Your task to perform on an android device: Go to Reddit.com Image 0: 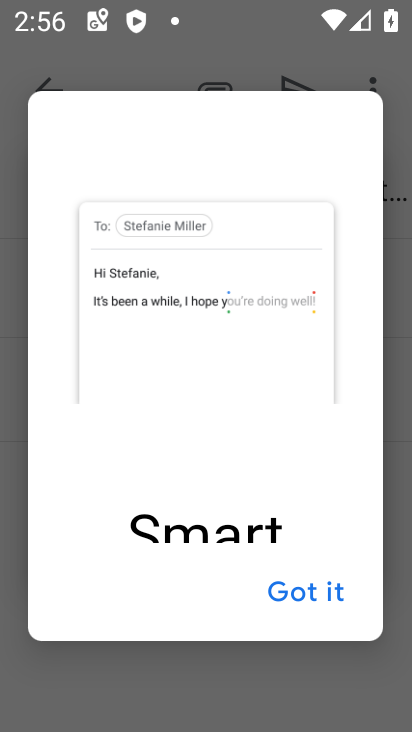
Step 0: press back button
Your task to perform on an android device: Go to Reddit.com Image 1: 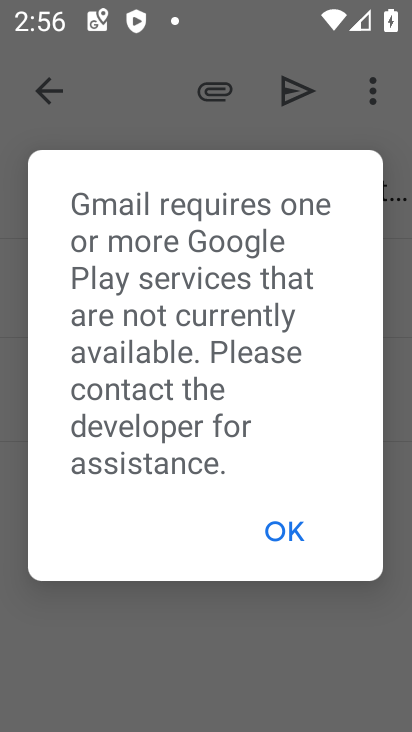
Step 1: press home button
Your task to perform on an android device: Go to Reddit.com Image 2: 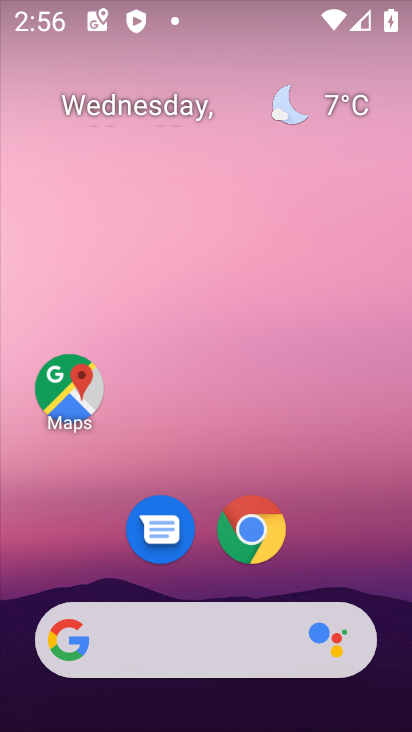
Step 2: click (243, 523)
Your task to perform on an android device: Go to Reddit.com Image 3: 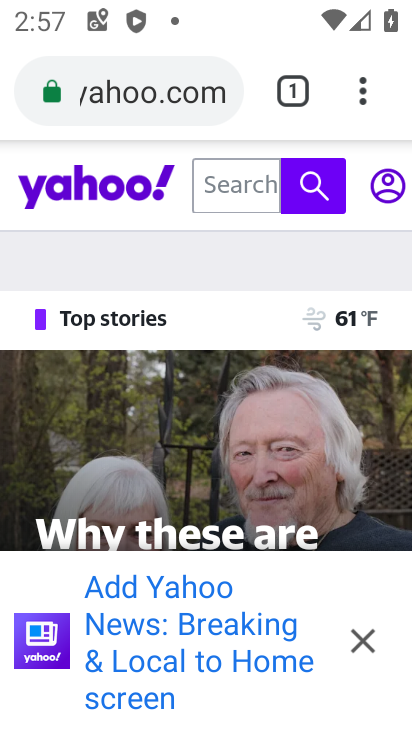
Step 3: click (119, 82)
Your task to perform on an android device: Go to Reddit.com Image 4: 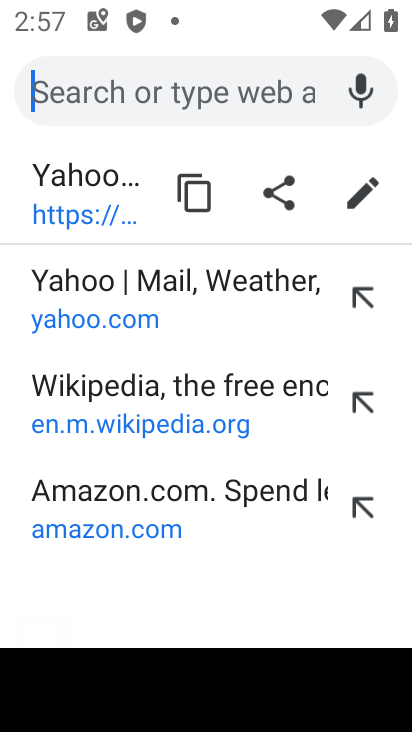
Step 4: click (119, 82)
Your task to perform on an android device: Go to Reddit.com Image 5: 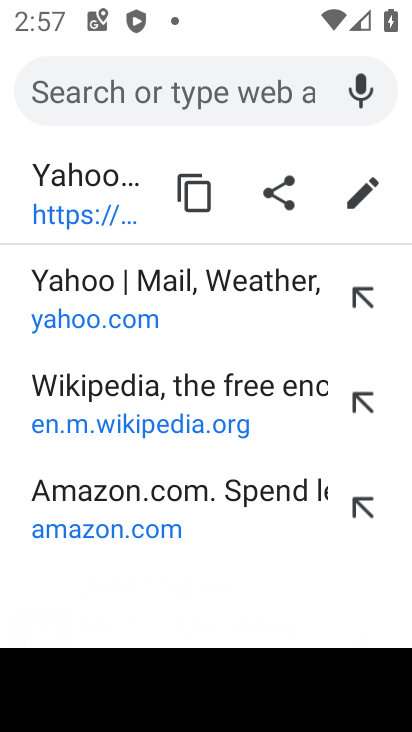
Step 5: type "Reddit.com"
Your task to perform on an android device: Go to Reddit.com Image 6: 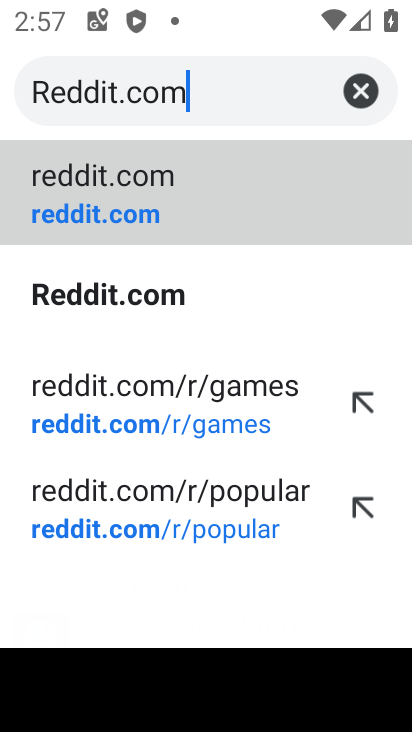
Step 6: type ""
Your task to perform on an android device: Go to Reddit.com Image 7: 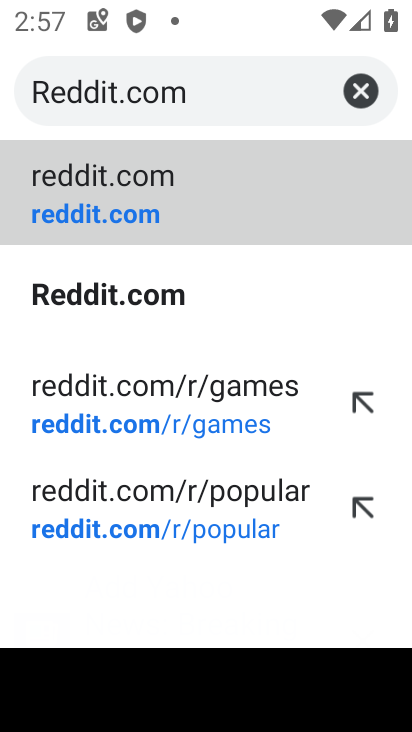
Step 7: click (96, 290)
Your task to perform on an android device: Go to Reddit.com Image 8: 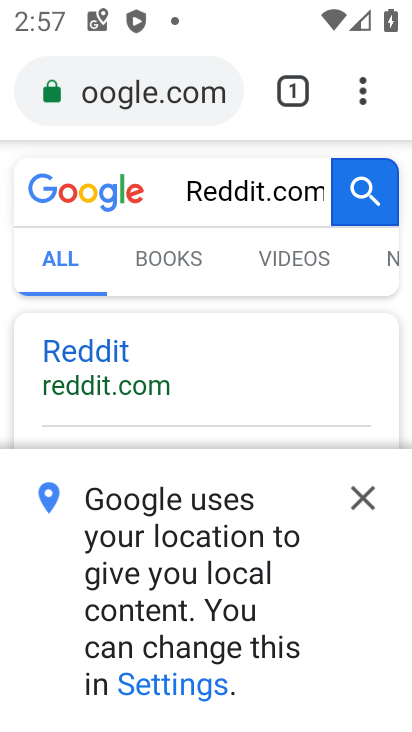
Step 8: click (362, 496)
Your task to perform on an android device: Go to Reddit.com Image 9: 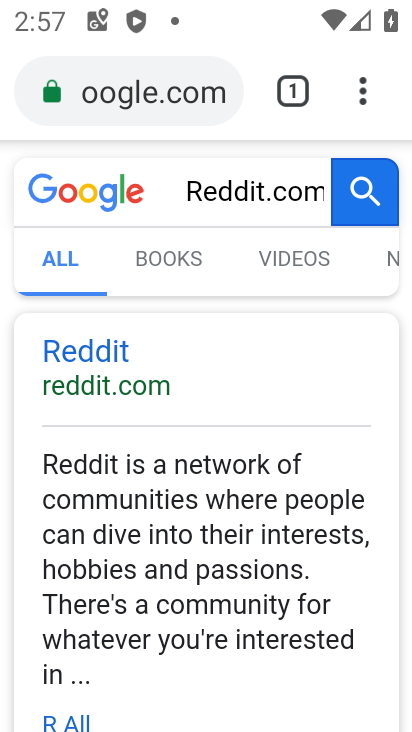
Step 9: click (101, 355)
Your task to perform on an android device: Go to Reddit.com Image 10: 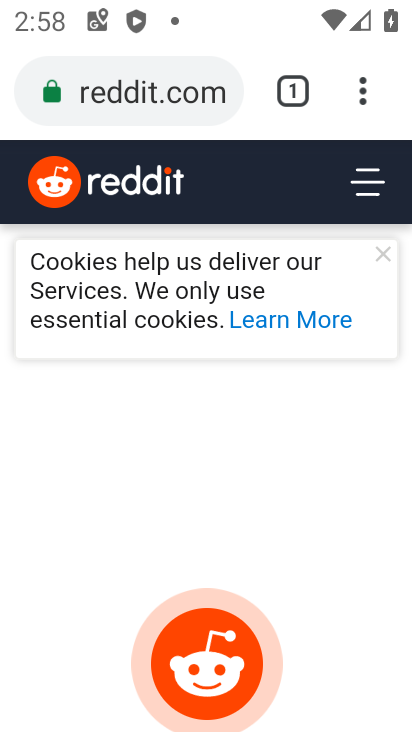
Step 10: task complete